Your task to perform on an android device: empty trash in the gmail app Image 0: 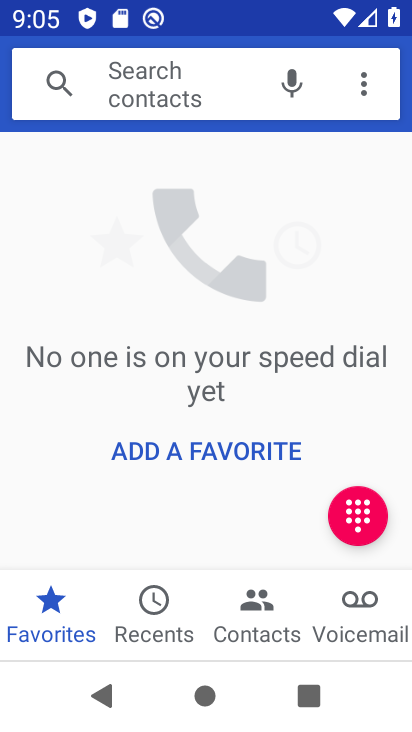
Step 0: press home button
Your task to perform on an android device: empty trash in the gmail app Image 1: 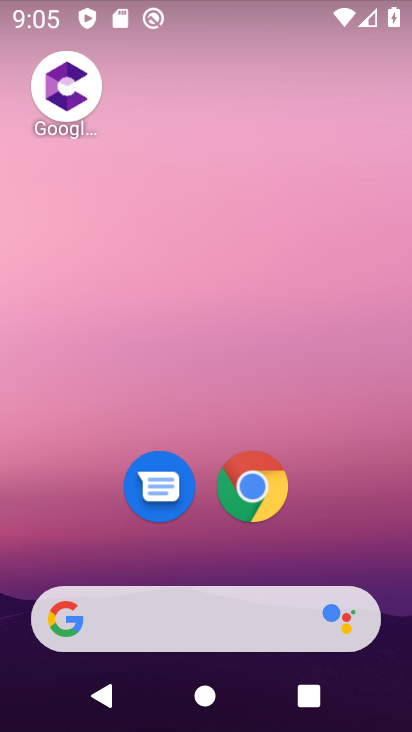
Step 1: drag from (217, 556) to (210, 109)
Your task to perform on an android device: empty trash in the gmail app Image 2: 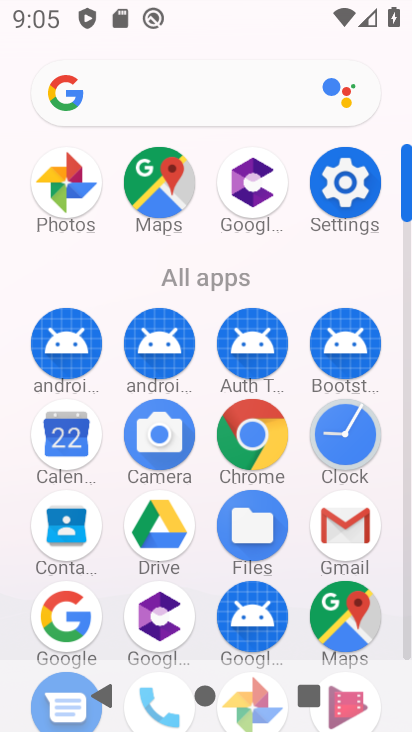
Step 2: click (340, 520)
Your task to perform on an android device: empty trash in the gmail app Image 3: 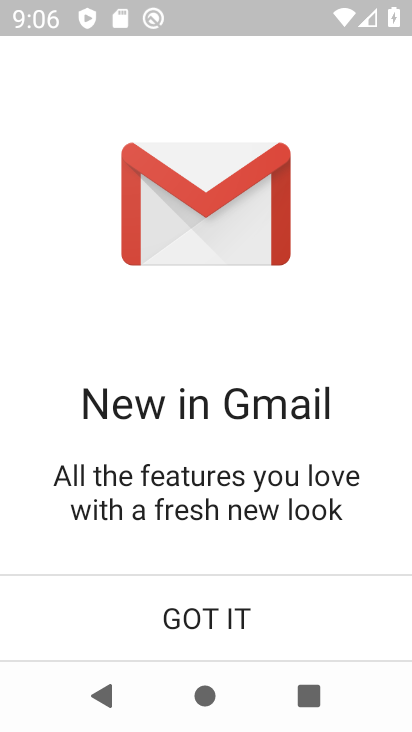
Step 3: click (210, 628)
Your task to perform on an android device: empty trash in the gmail app Image 4: 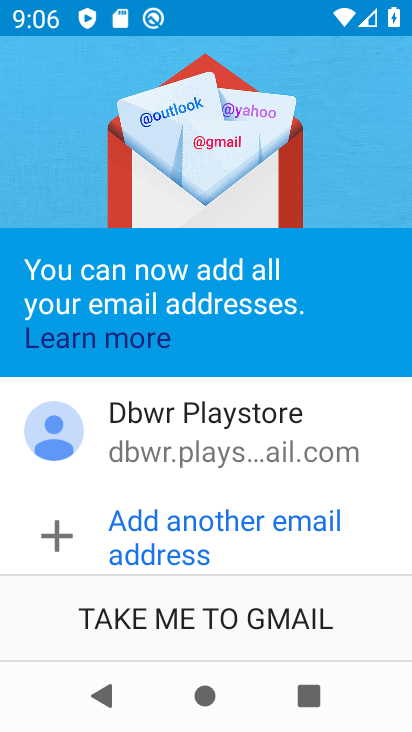
Step 4: click (197, 629)
Your task to perform on an android device: empty trash in the gmail app Image 5: 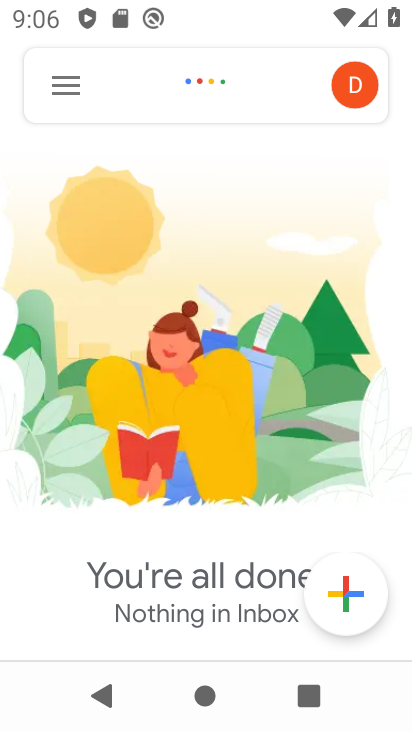
Step 5: click (68, 79)
Your task to perform on an android device: empty trash in the gmail app Image 6: 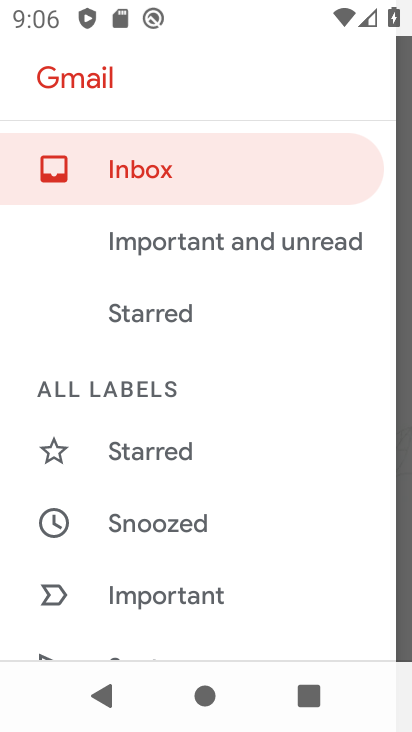
Step 6: drag from (221, 596) to (228, 165)
Your task to perform on an android device: empty trash in the gmail app Image 7: 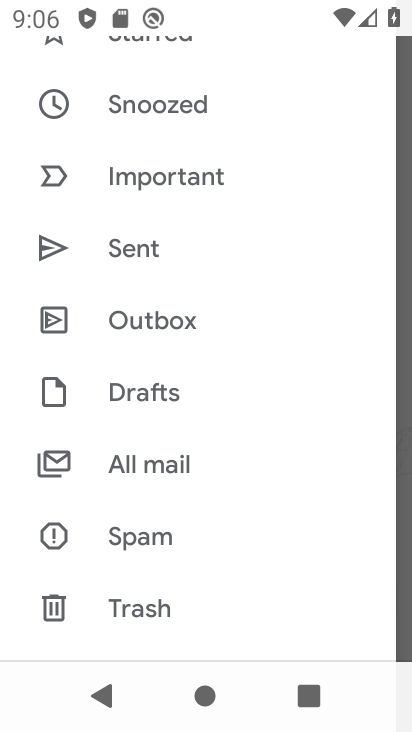
Step 7: click (161, 602)
Your task to perform on an android device: empty trash in the gmail app Image 8: 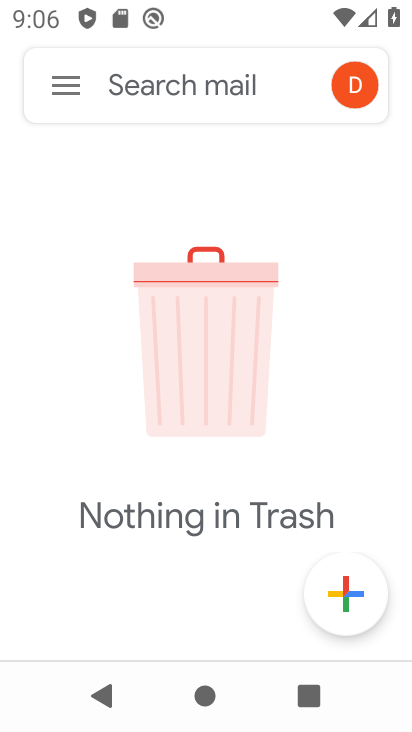
Step 8: task complete